Your task to perform on an android device: Go to sound settings Image 0: 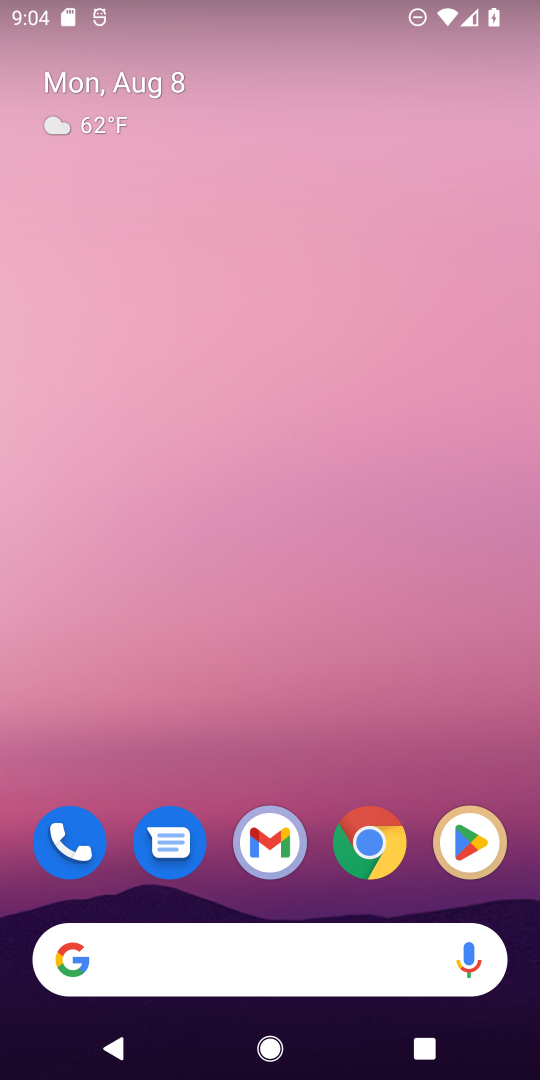
Step 0: drag from (280, 720) to (379, 7)
Your task to perform on an android device: Go to sound settings Image 1: 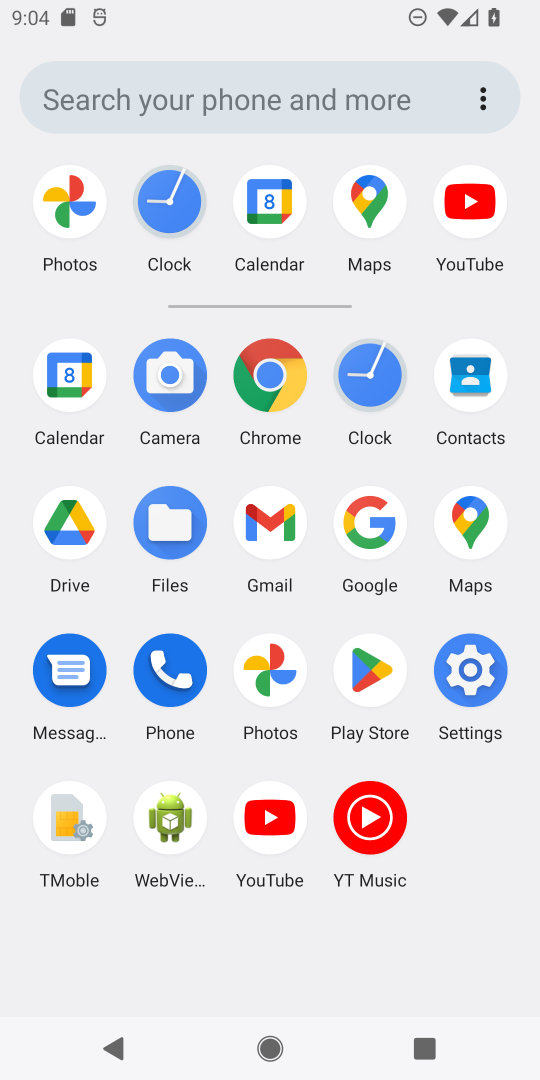
Step 1: click (468, 669)
Your task to perform on an android device: Go to sound settings Image 2: 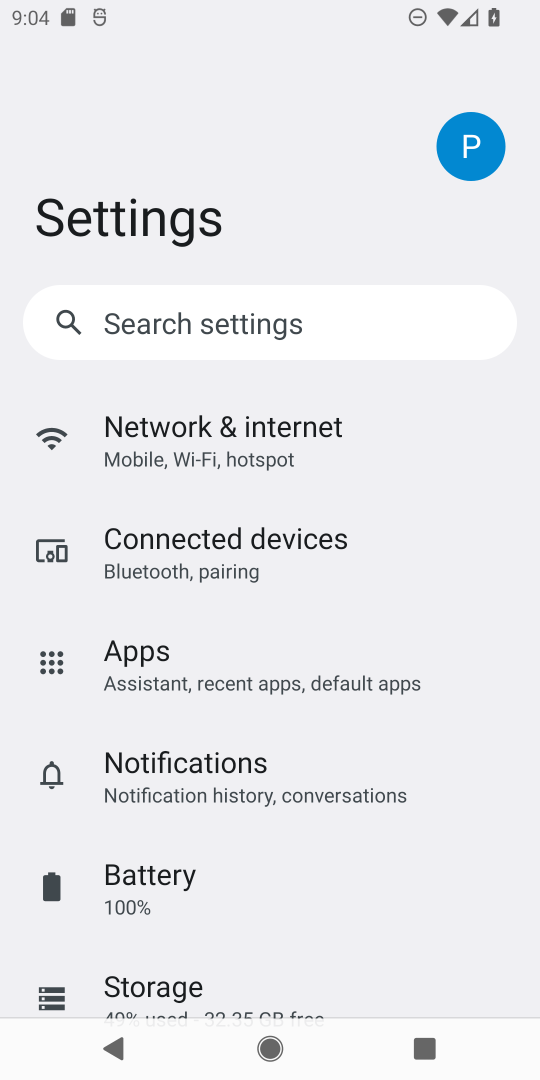
Step 2: drag from (283, 887) to (387, 115)
Your task to perform on an android device: Go to sound settings Image 3: 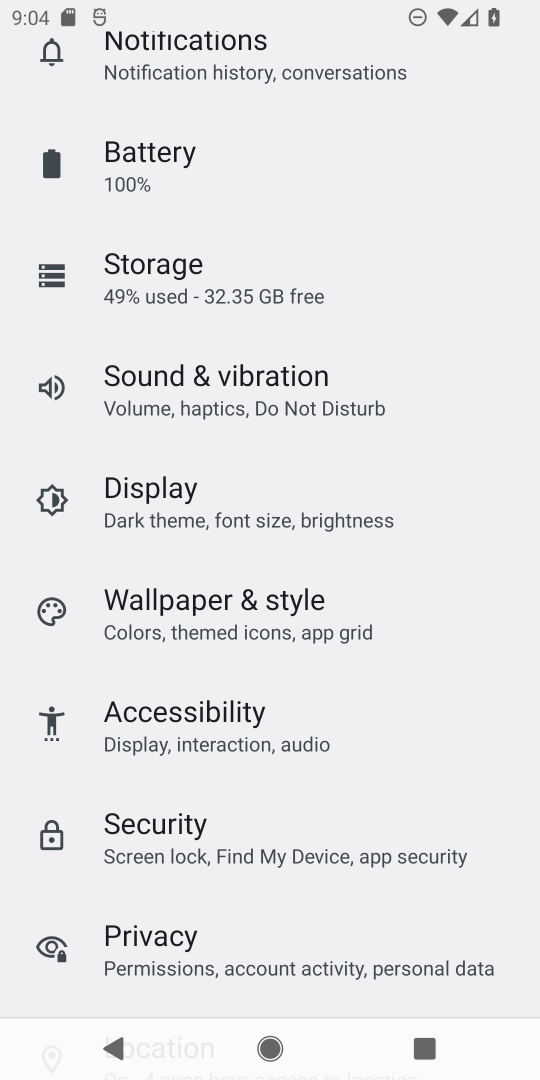
Step 3: click (259, 393)
Your task to perform on an android device: Go to sound settings Image 4: 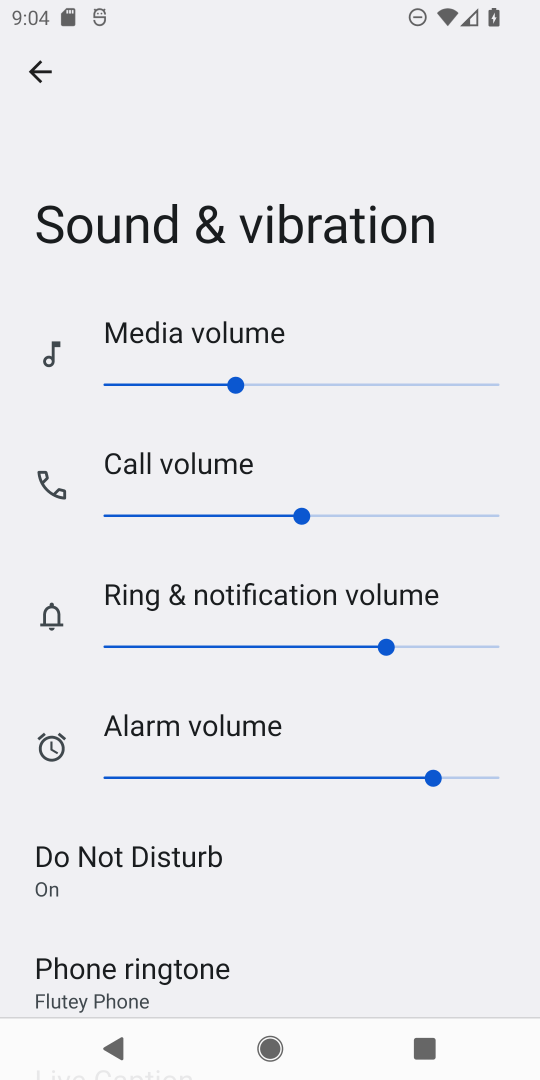
Step 4: task complete